Your task to perform on an android device: Open Youtube and go to the subscriptions tab Image 0: 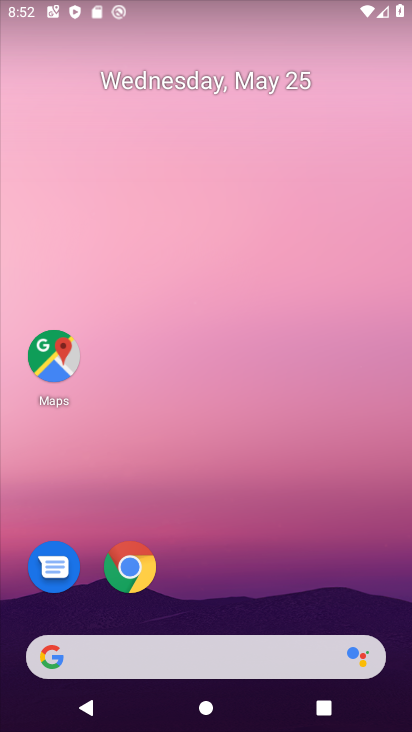
Step 0: drag from (244, 560) to (244, 434)
Your task to perform on an android device: Open Youtube and go to the subscriptions tab Image 1: 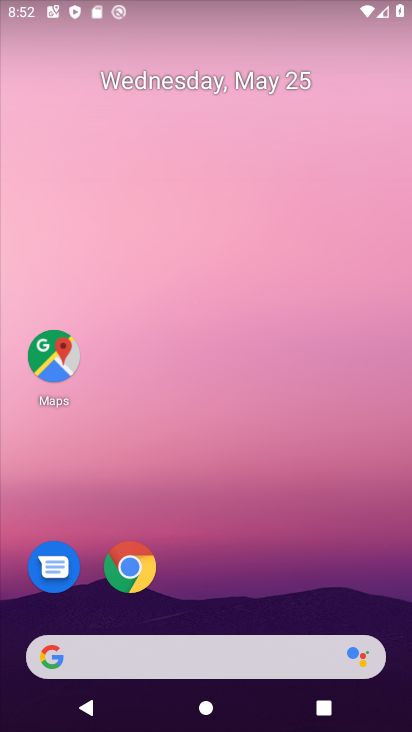
Step 1: drag from (213, 546) to (268, 24)
Your task to perform on an android device: Open Youtube and go to the subscriptions tab Image 2: 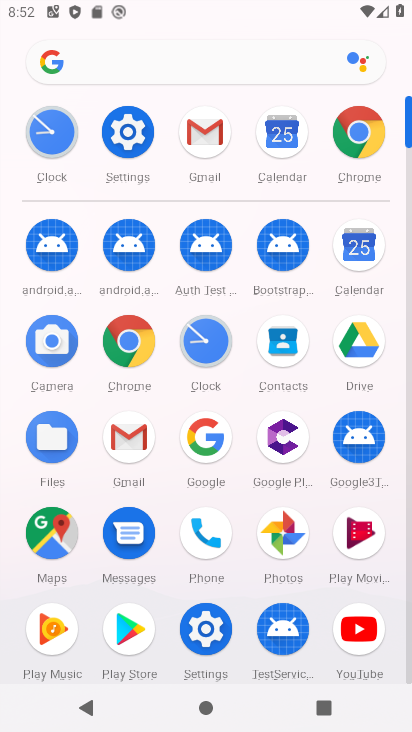
Step 2: click (364, 633)
Your task to perform on an android device: Open Youtube and go to the subscriptions tab Image 3: 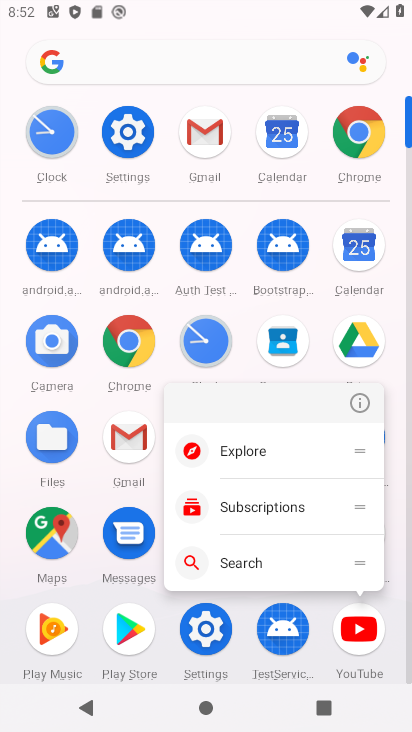
Step 3: click (364, 630)
Your task to perform on an android device: Open Youtube and go to the subscriptions tab Image 4: 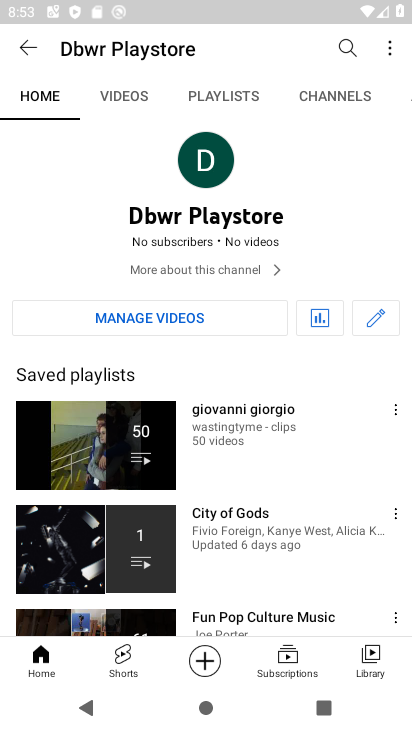
Step 4: click (278, 654)
Your task to perform on an android device: Open Youtube and go to the subscriptions tab Image 5: 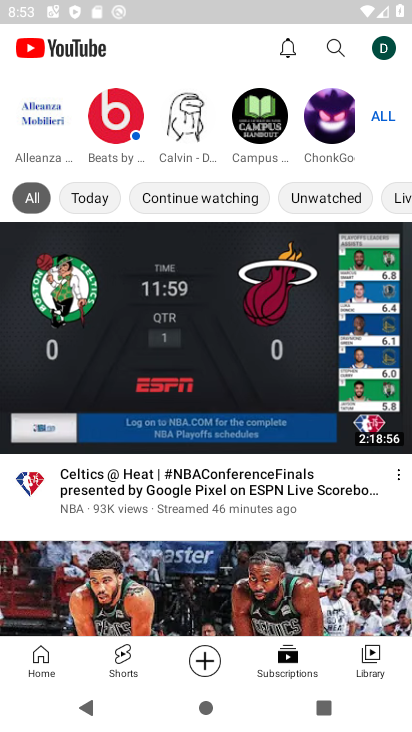
Step 5: task complete